Your task to perform on an android device: open device folders in google photos Image 0: 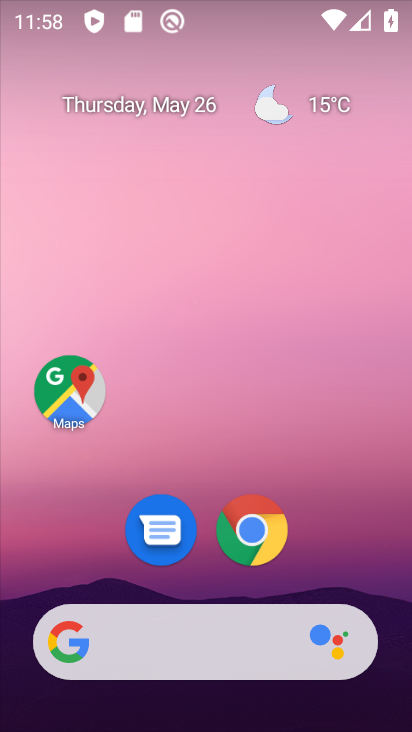
Step 0: drag from (67, 599) to (288, 1)
Your task to perform on an android device: open device folders in google photos Image 1: 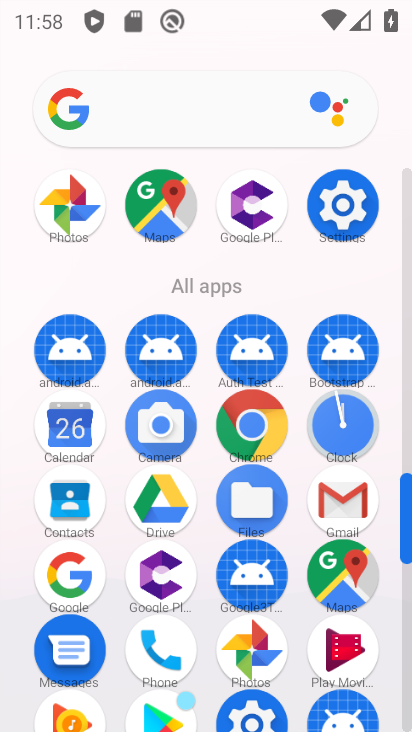
Step 1: click (257, 651)
Your task to perform on an android device: open device folders in google photos Image 2: 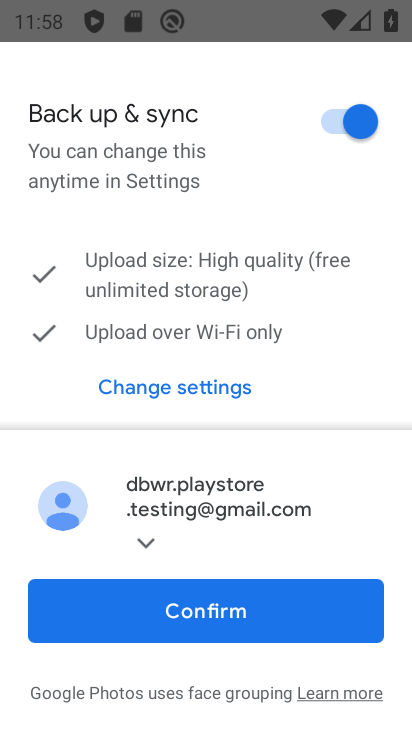
Step 2: click (250, 621)
Your task to perform on an android device: open device folders in google photos Image 3: 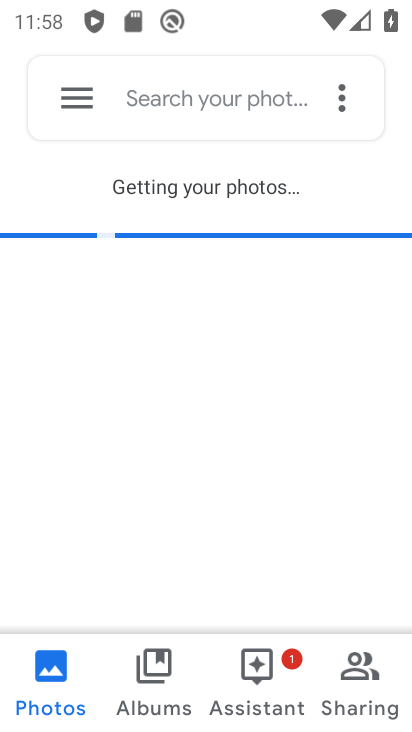
Step 3: click (72, 103)
Your task to perform on an android device: open device folders in google photos Image 4: 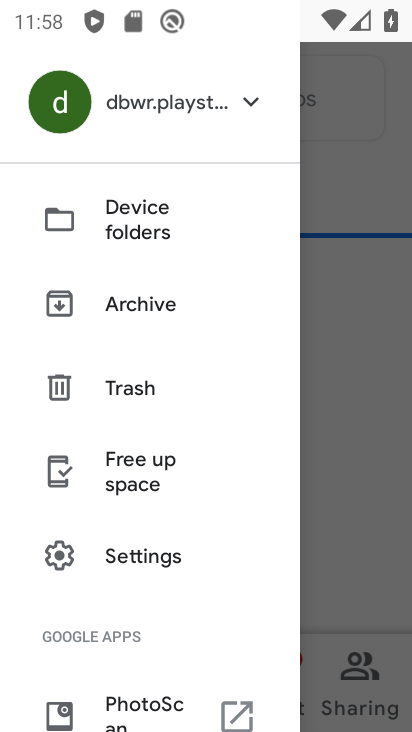
Step 4: click (139, 216)
Your task to perform on an android device: open device folders in google photos Image 5: 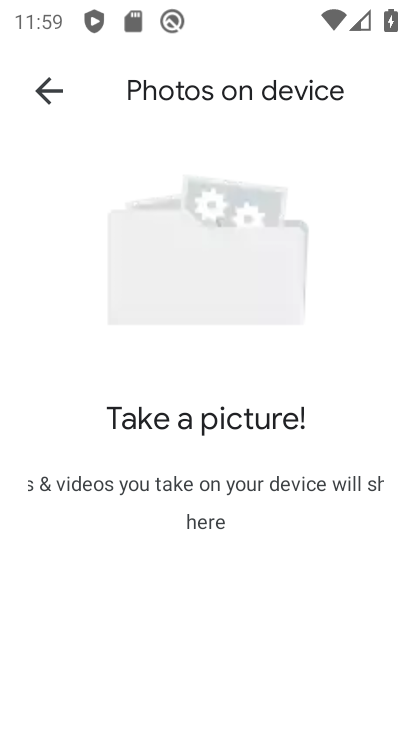
Step 5: task complete